Your task to perform on an android device: Search for pizza restaurants on Maps Image 0: 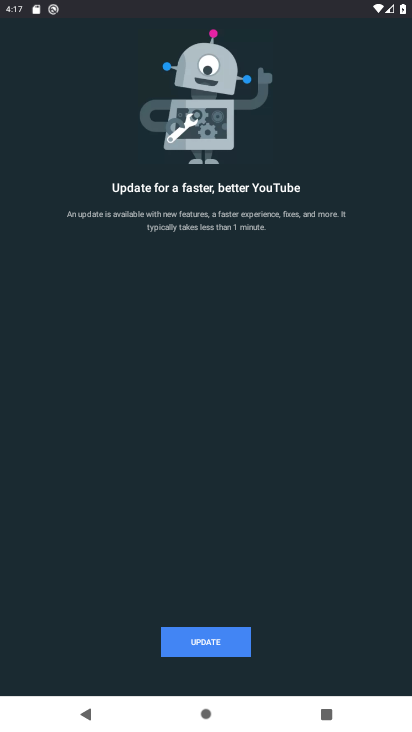
Step 0: click (209, 646)
Your task to perform on an android device: Search for pizza restaurants on Maps Image 1: 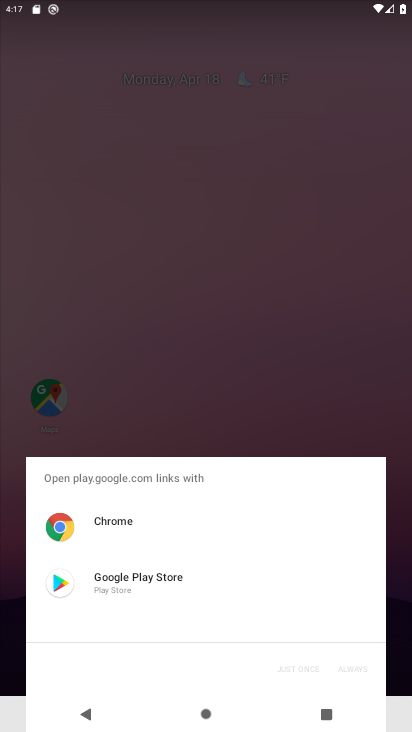
Step 1: press home button
Your task to perform on an android device: Search for pizza restaurants on Maps Image 2: 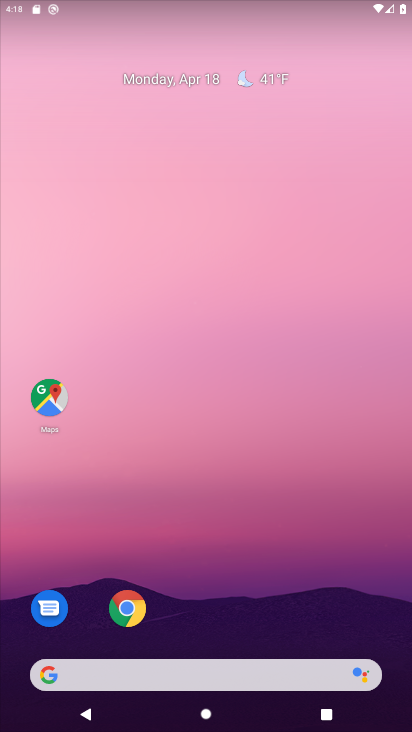
Step 2: click (44, 382)
Your task to perform on an android device: Search for pizza restaurants on Maps Image 3: 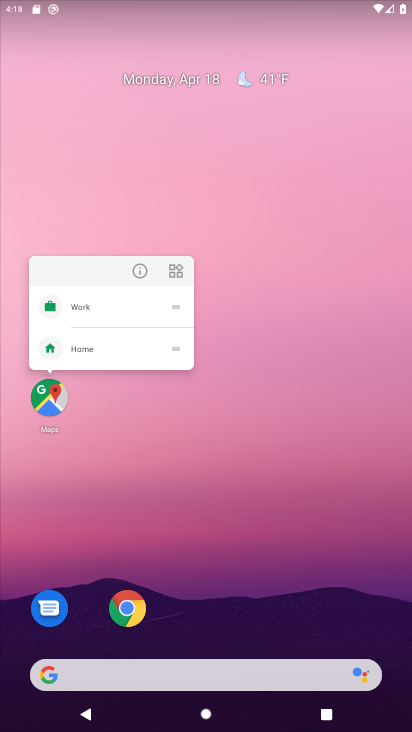
Step 3: click (44, 398)
Your task to perform on an android device: Search for pizza restaurants on Maps Image 4: 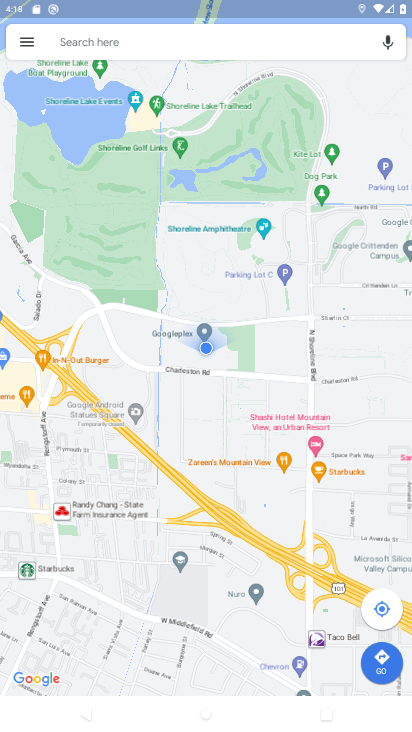
Step 4: click (124, 44)
Your task to perform on an android device: Search for pizza restaurants on Maps Image 5: 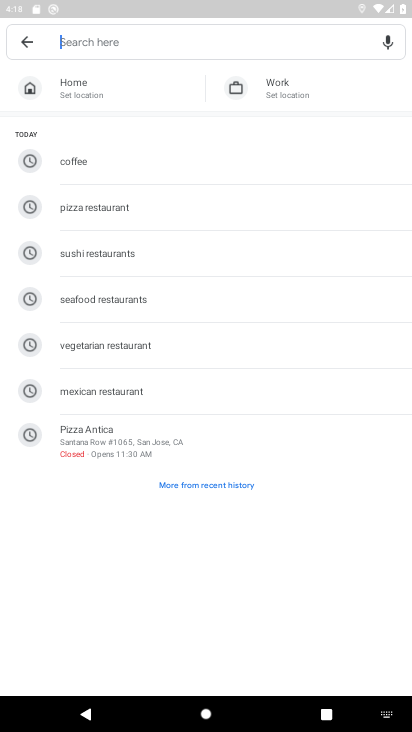
Step 5: click (91, 209)
Your task to perform on an android device: Search for pizza restaurants on Maps Image 6: 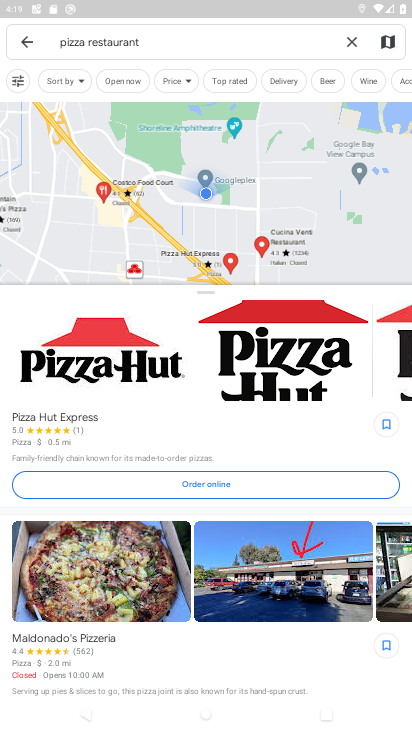
Step 6: task complete